Your task to perform on an android device: turn off location history Image 0: 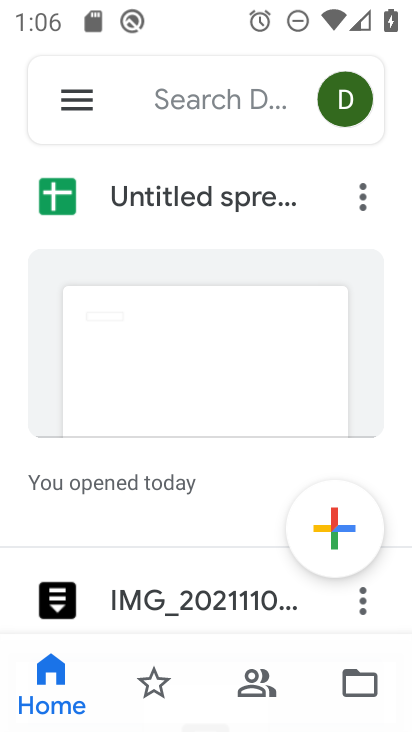
Step 0: press home button
Your task to perform on an android device: turn off location history Image 1: 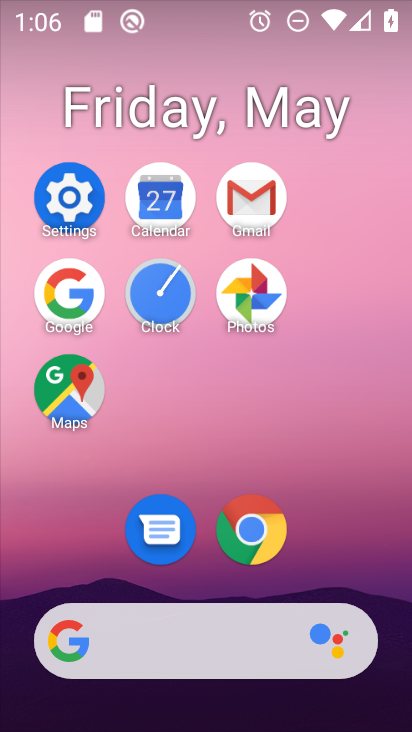
Step 1: click (67, 189)
Your task to perform on an android device: turn off location history Image 2: 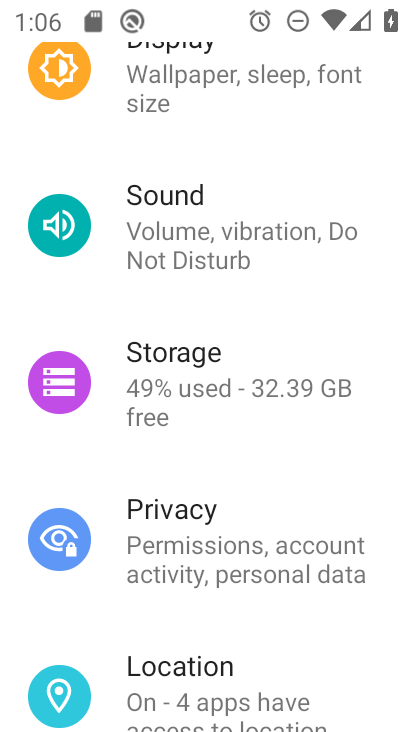
Step 2: drag from (267, 634) to (282, 259)
Your task to perform on an android device: turn off location history Image 3: 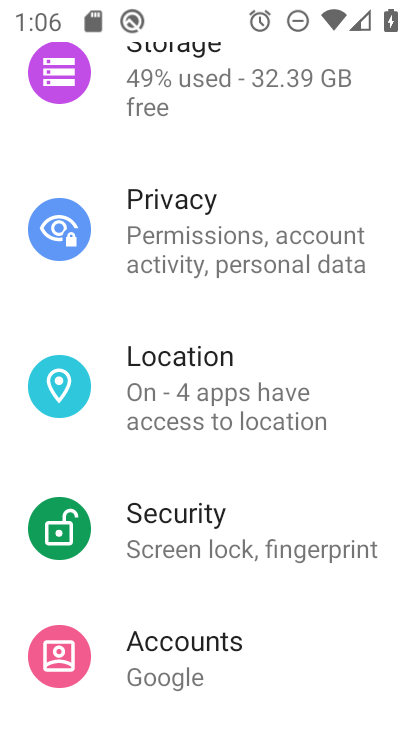
Step 3: click (228, 377)
Your task to perform on an android device: turn off location history Image 4: 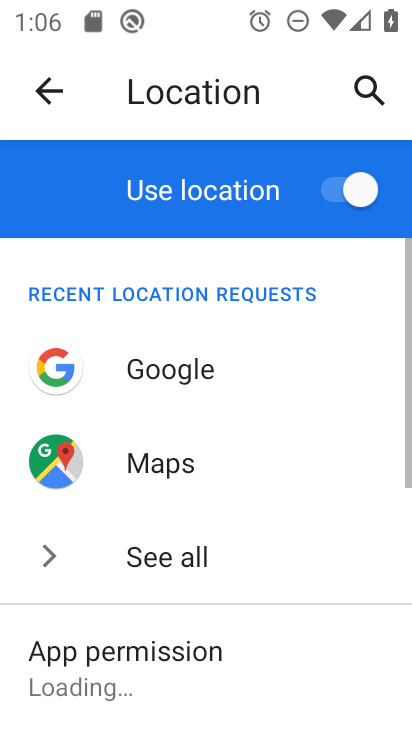
Step 4: drag from (248, 664) to (269, 307)
Your task to perform on an android device: turn off location history Image 5: 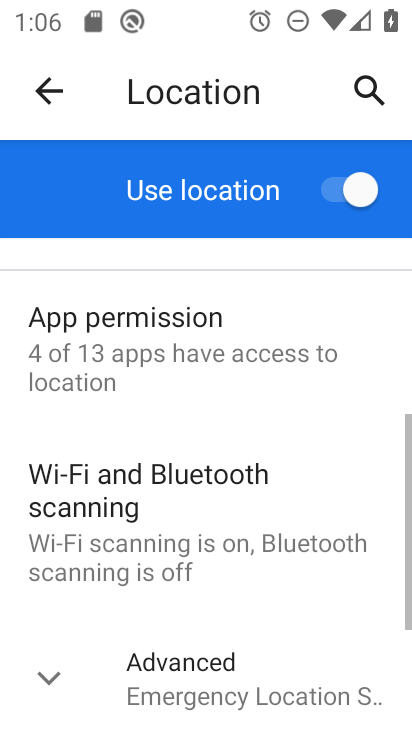
Step 5: click (240, 667)
Your task to perform on an android device: turn off location history Image 6: 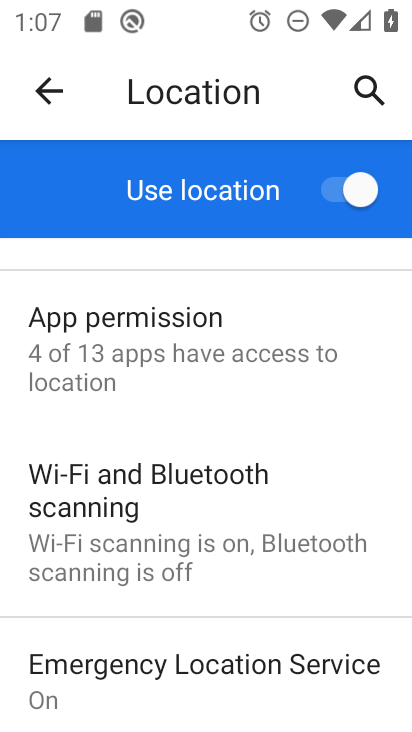
Step 6: drag from (281, 625) to (300, 197)
Your task to perform on an android device: turn off location history Image 7: 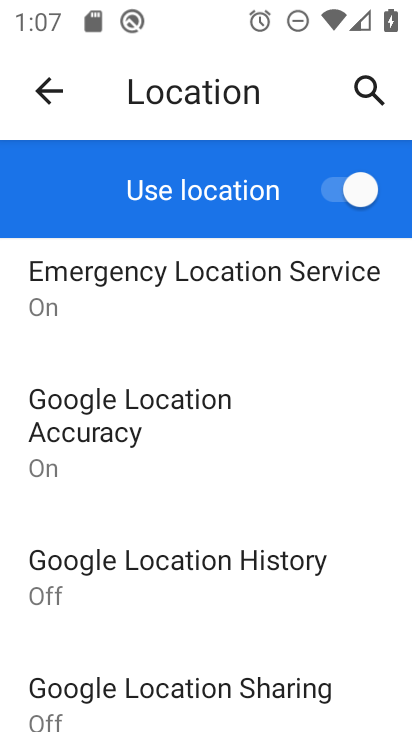
Step 7: click (242, 571)
Your task to perform on an android device: turn off location history Image 8: 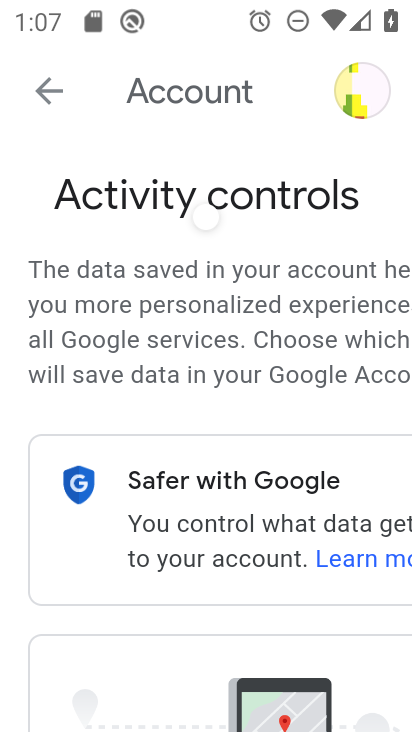
Step 8: drag from (242, 571) to (246, 163)
Your task to perform on an android device: turn off location history Image 9: 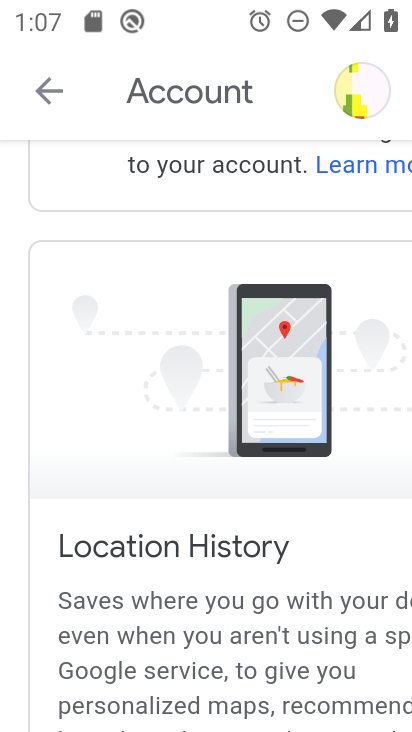
Step 9: drag from (215, 632) to (243, 254)
Your task to perform on an android device: turn off location history Image 10: 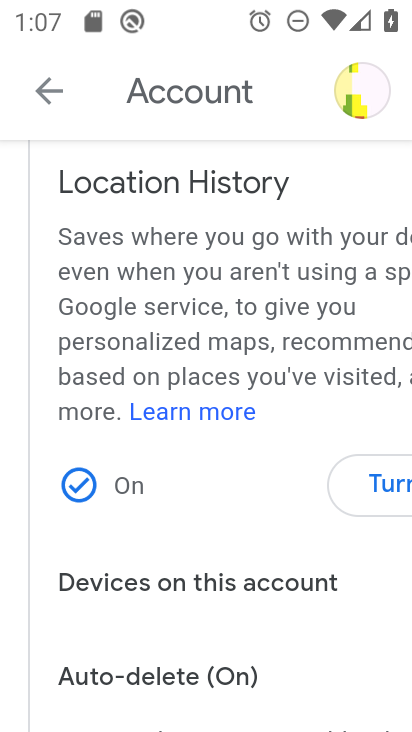
Step 10: click (365, 480)
Your task to perform on an android device: turn off location history Image 11: 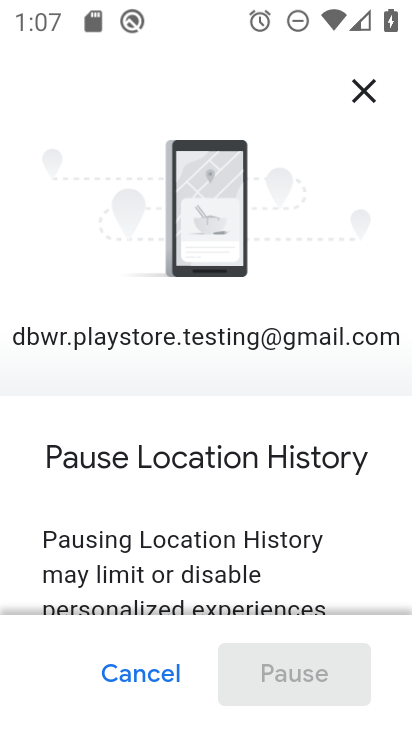
Step 11: drag from (289, 598) to (302, 181)
Your task to perform on an android device: turn off location history Image 12: 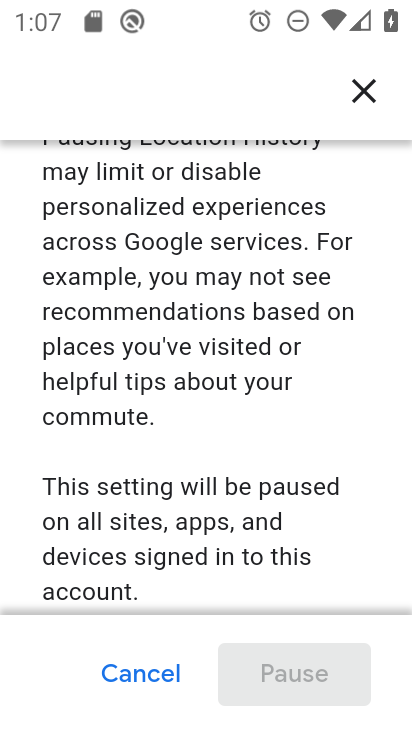
Step 12: drag from (265, 558) to (259, 162)
Your task to perform on an android device: turn off location history Image 13: 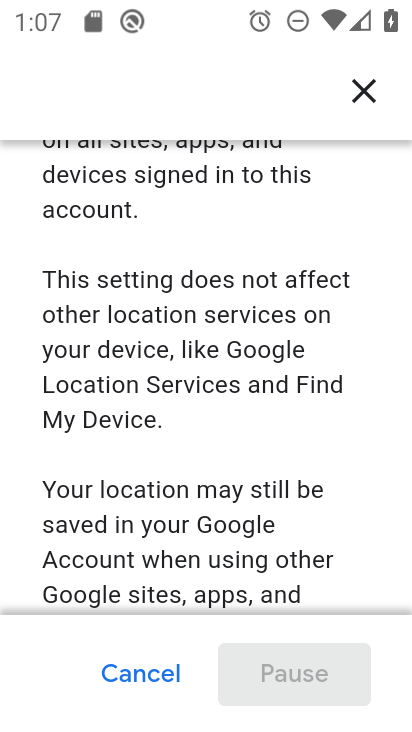
Step 13: drag from (306, 600) to (291, 204)
Your task to perform on an android device: turn off location history Image 14: 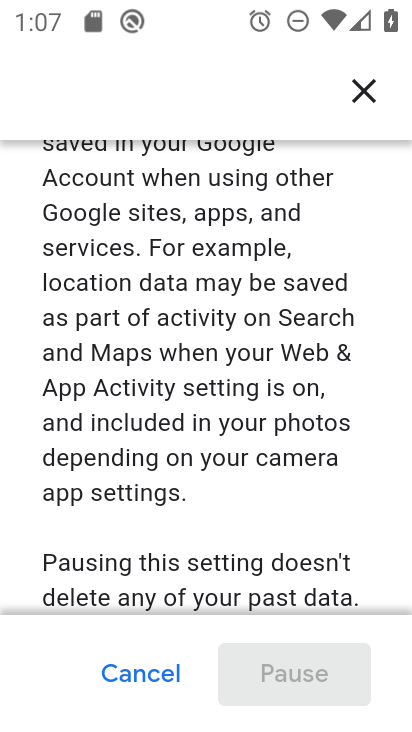
Step 14: drag from (279, 588) to (304, 223)
Your task to perform on an android device: turn off location history Image 15: 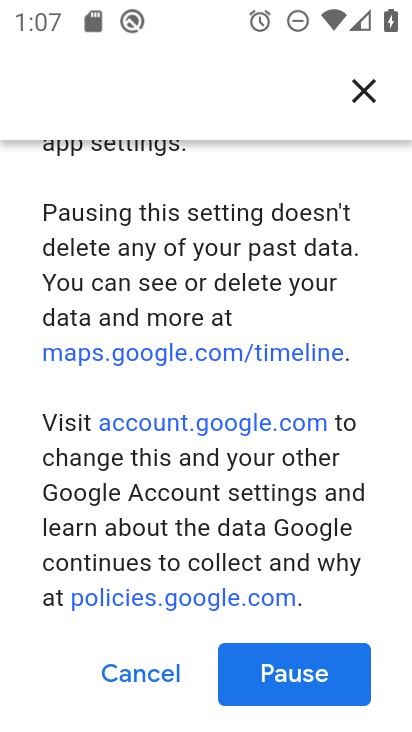
Step 15: drag from (258, 573) to (224, 168)
Your task to perform on an android device: turn off location history Image 16: 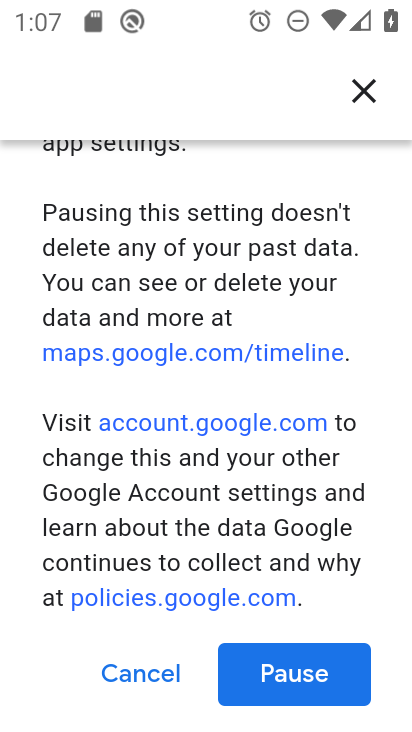
Step 16: click (287, 679)
Your task to perform on an android device: turn off location history Image 17: 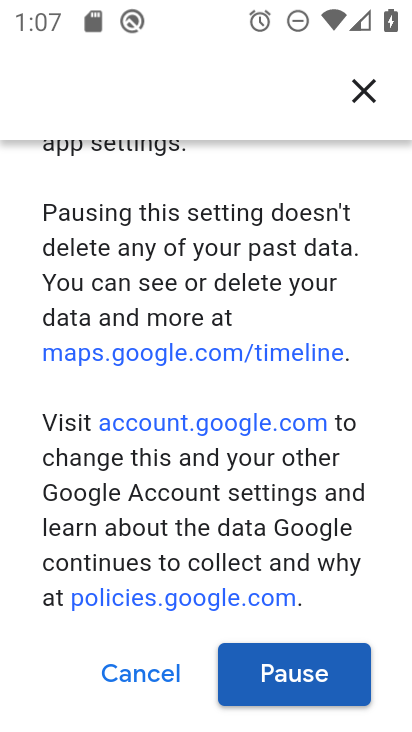
Step 17: click (318, 684)
Your task to perform on an android device: turn off location history Image 18: 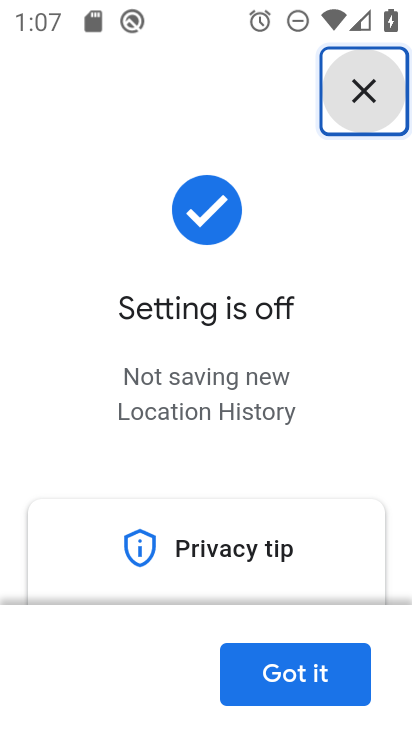
Step 18: click (316, 689)
Your task to perform on an android device: turn off location history Image 19: 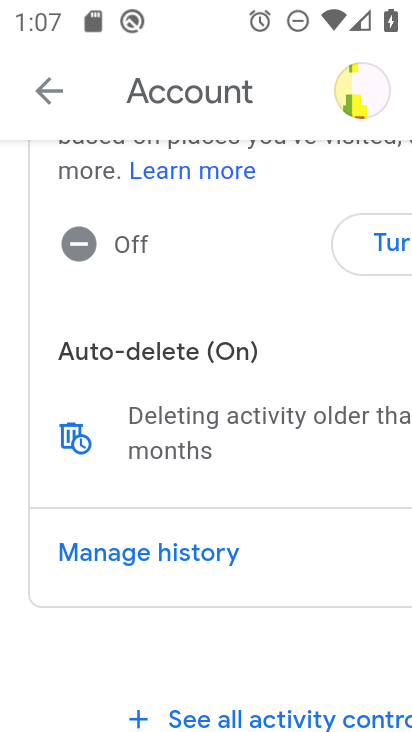
Step 19: task complete